Your task to perform on an android device: Open Google Chrome Image 0: 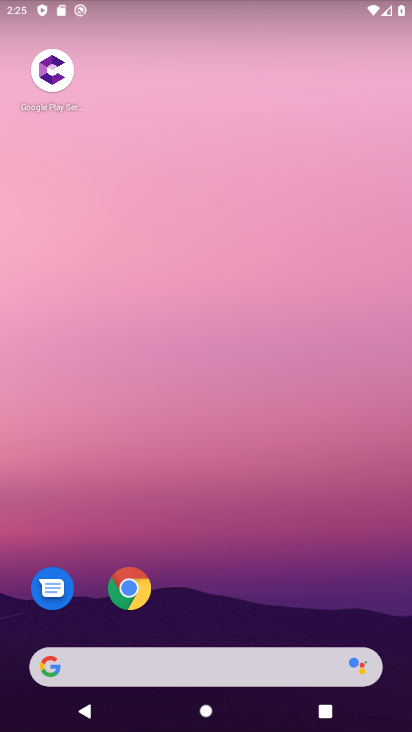
Step 0: drag from (294, 416) to (80, 114)
Your task to perform on an android device: Open Google Chrome Image 1: 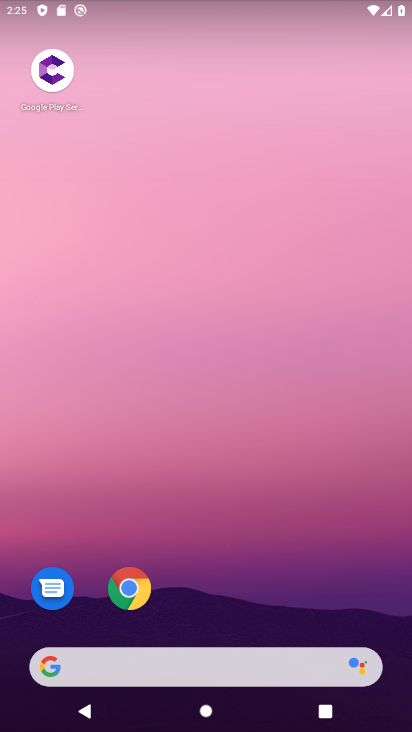
Step 1: drag from (240, 618) to (199, 3)
Your task to perform on an android device: Open Google Chrome Image 2: 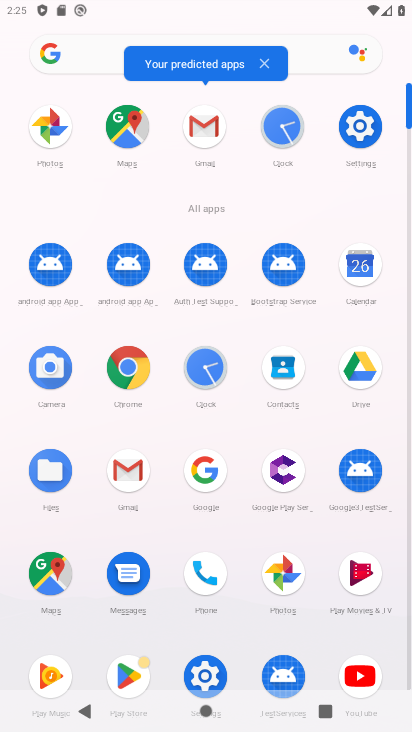
Step 2: click (125, 365)
Your task to perform on an android device: Open Google Chrome Image 3: 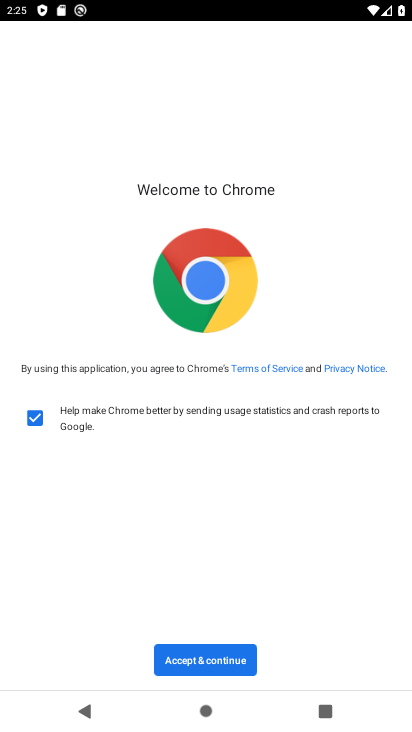
Step 3: click (229, 651)
Your task to perform on an android device: Open Google Chrome Image 4: 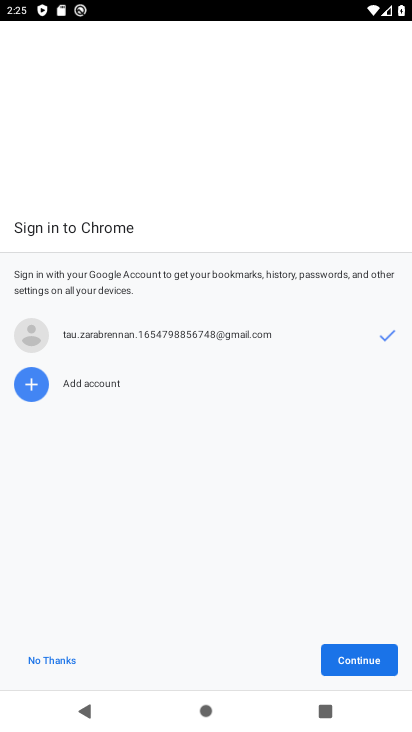
Step 4: click (66, 661)
Your task to perform on an android device: Open Google Chrome Image 5: 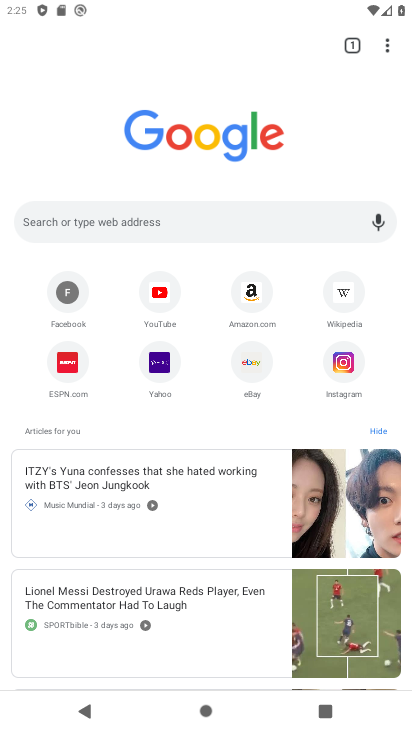
Step 5: task complete